Your task to perform on an android device: change your default location settings in chrome Image 0: 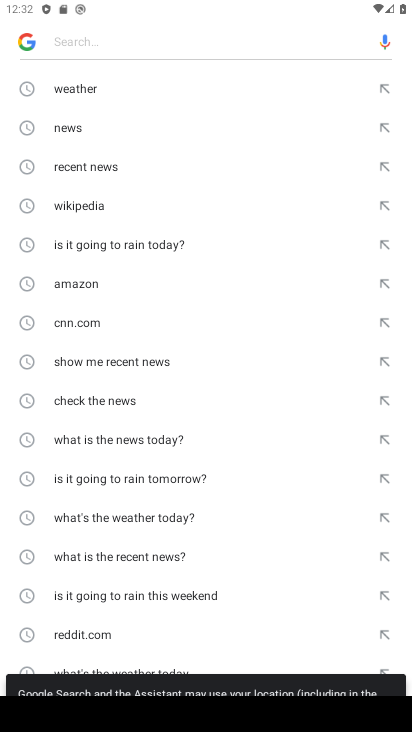
Step 0: press back button
Your task to perform on an android device: change your default location settings in chrome Image 1: 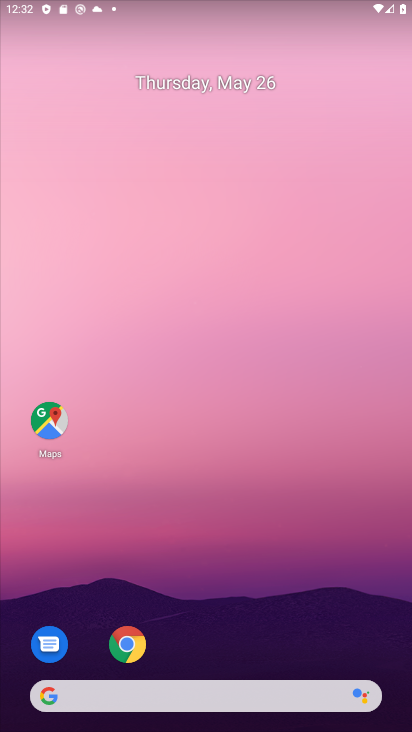
Step 1: drag from (41, 514) to (232, 96)
Your task to perform on an android device: change your default location settings in chrome Image 2: 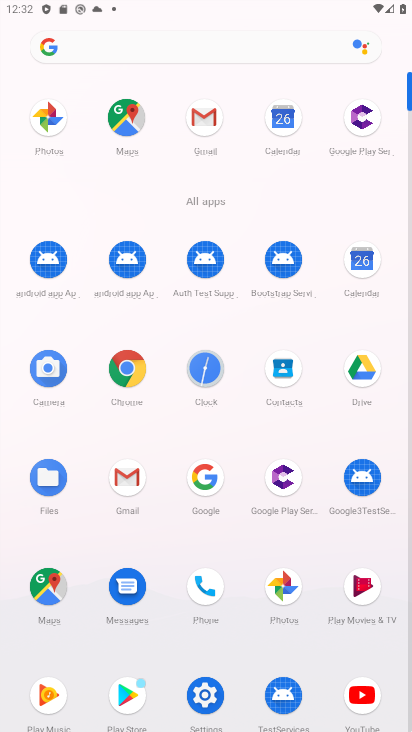
Step 2: click (118, 369)
Your task to perform on an android device: change your default location settings in chrome Image 3: 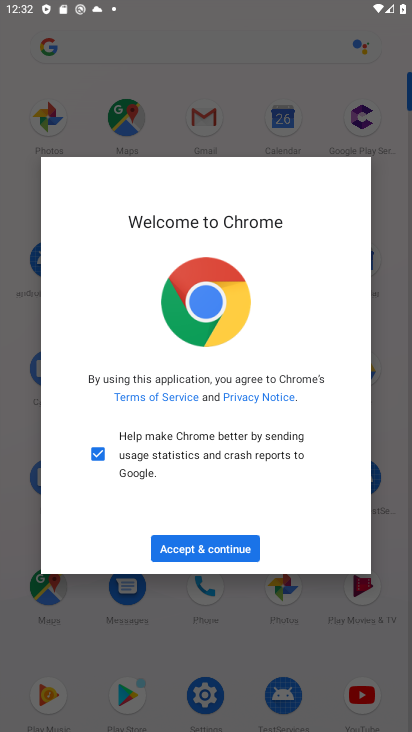
Step 3: click (217, 557)
Your task to perform on an android device: change your default location settings in chrome Image 4: 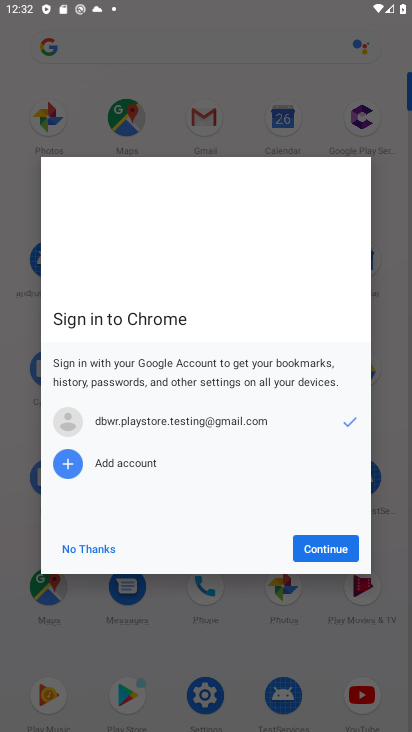
Step 4: click (75, 550)
Your task to perform on an android device: change your default location settings in chrome Image 5: 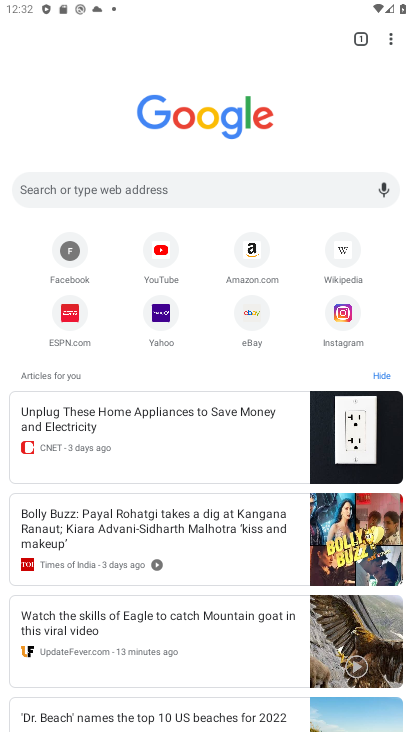
Step 5: click (392, 41)
Your task to perform on an android device: change your default location settings in chrome Image 6: 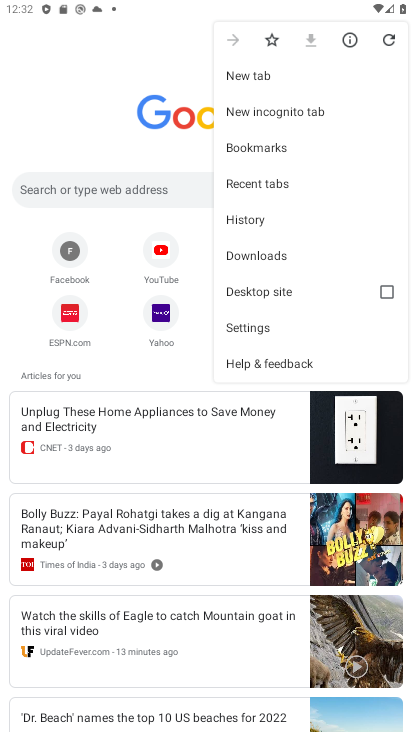
Step 6: click (275, 322)
Your task to perform on an android device: change your default location settings in chrome Image 7: 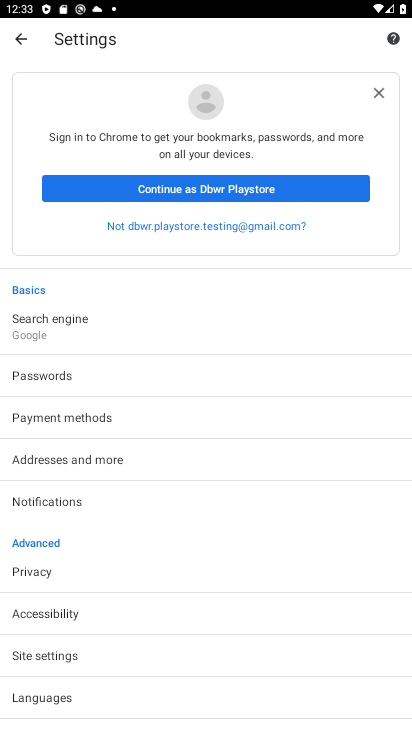
Step 7: click (40, 660)
Your task to perform on an android device: change your default location settings in chrome Image 8: 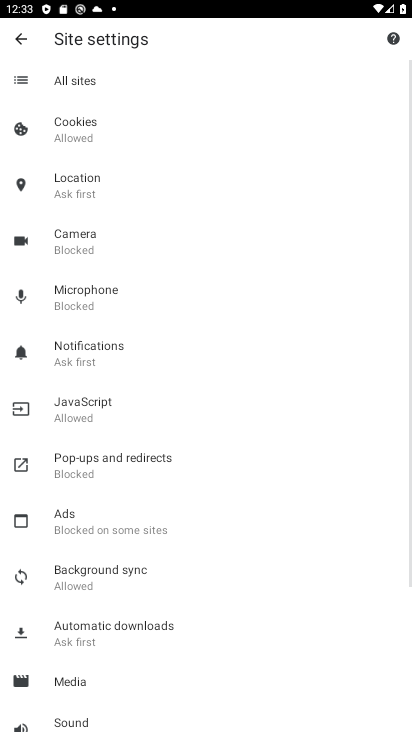
Step 8: click (98, 198)
Your task to perform on an android device: change your default location settings in chrome Image 9: 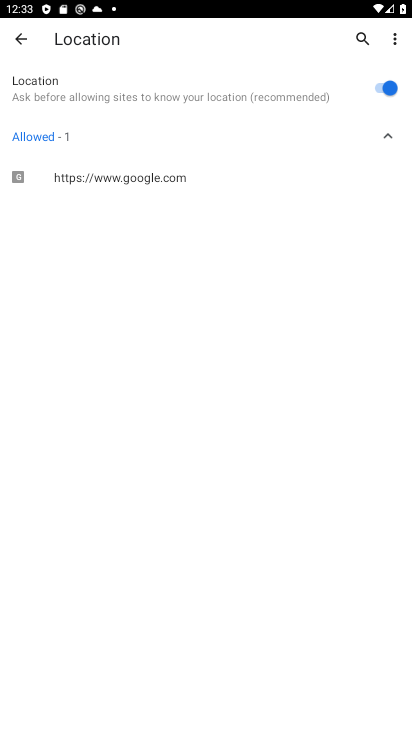
Step 9: click (157, 173)
Your task to perform on an android device: change your default location settings in chrome Image 10: 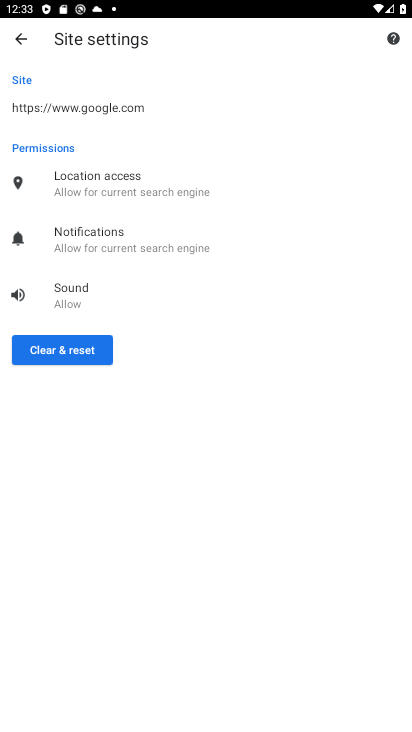
Step 10: click (152, 180)
Your task to perform on an android device: change your default location settings in chrome Image 11: 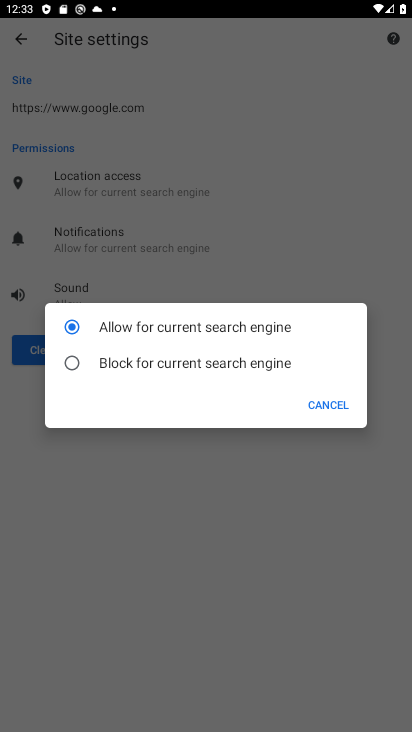
Step 11: click (314, 399)
Your task to perform on an android device: change your default location settings in chrome Image 12: 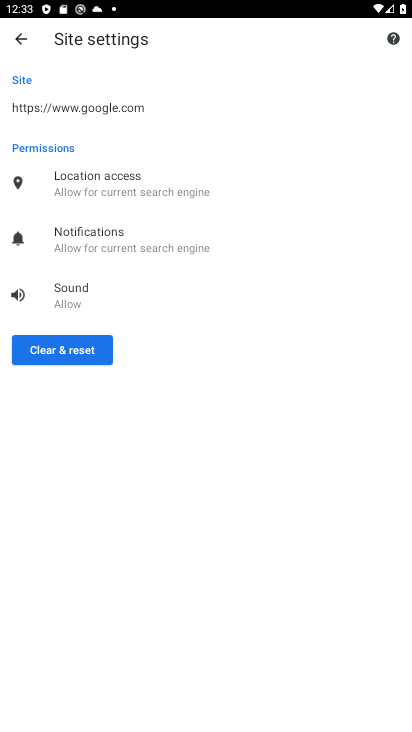
Step 12: task complete